Your task to perform on an android device: empty trash in google photos Image 0: 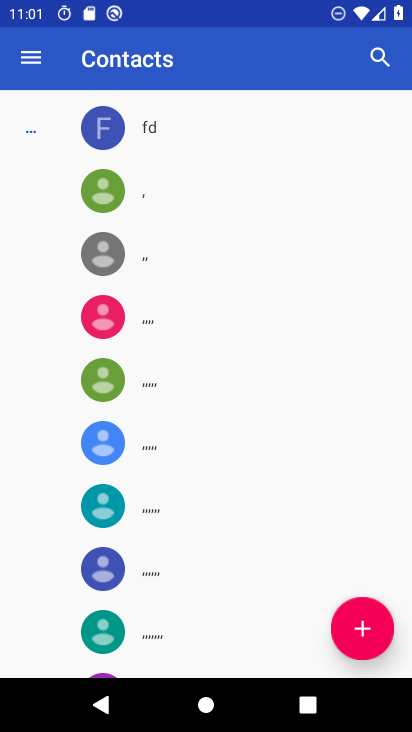
Step 0: press home button
Your task to perform on an android device: empty trash in google photos Image 1: 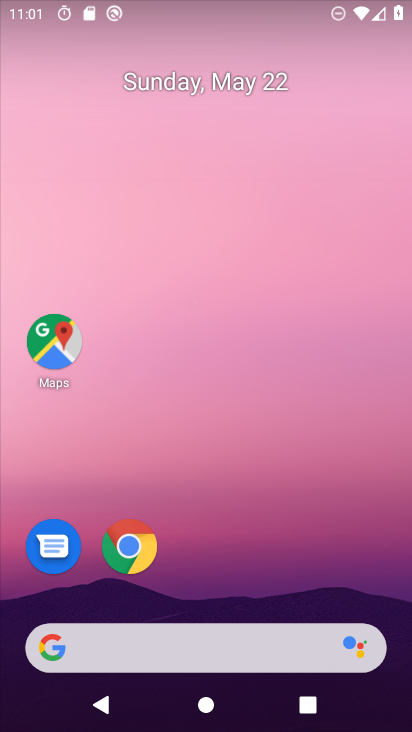
Step 1: drag from (235, 593) to (242, 17)
Your task to perform on an android device: empty trash in google photos Image 2: 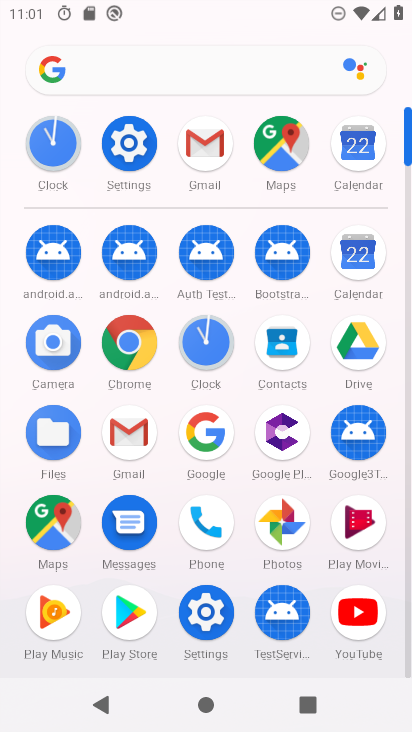
Step 2: click (289, 541)
Your task to perform on an android device: empty trash in google photos Image 3: 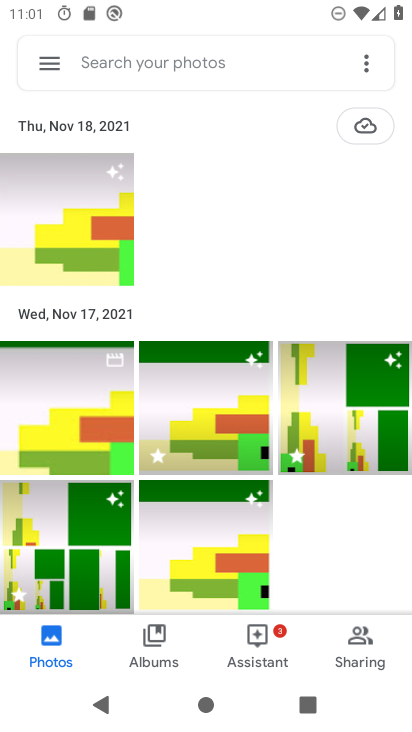
Step 3: click (43, 55)
Your task to perform on an android device: empty trash in google photos Image 4: 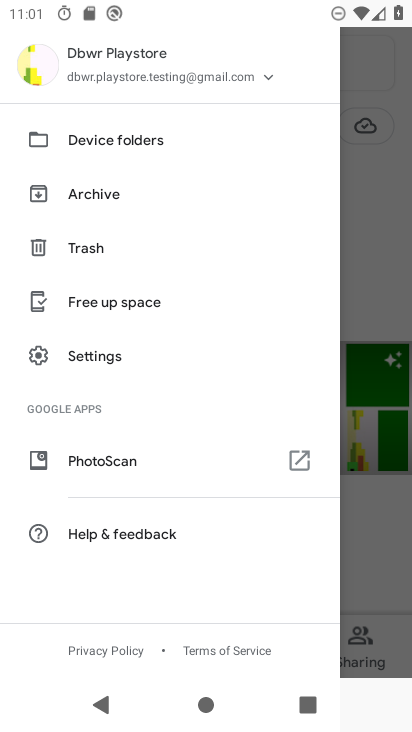
Step 4: click (89, 247)
Your task to perform on an android device: empty trash in google photos Image 5: 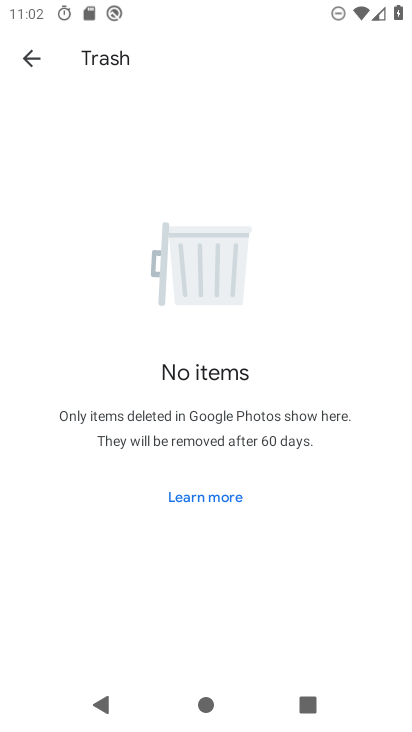
Step 5: task complete